Your task to perform on an android device: show emergency info Image 0: 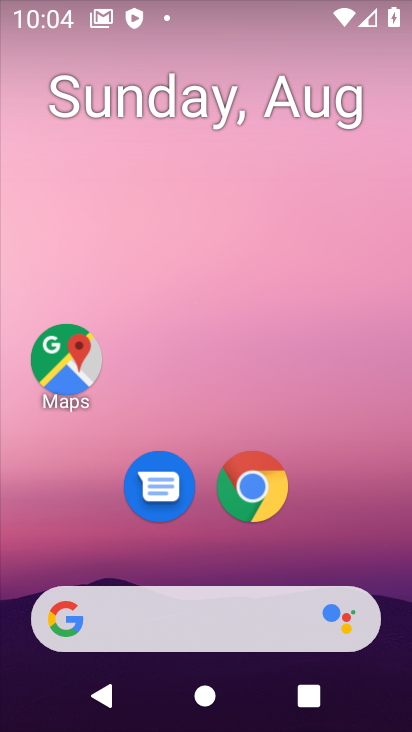
Step 0: drag from (263, 135) to (311, 11)
Your task to perform on an android device: show emergency info Image 1: 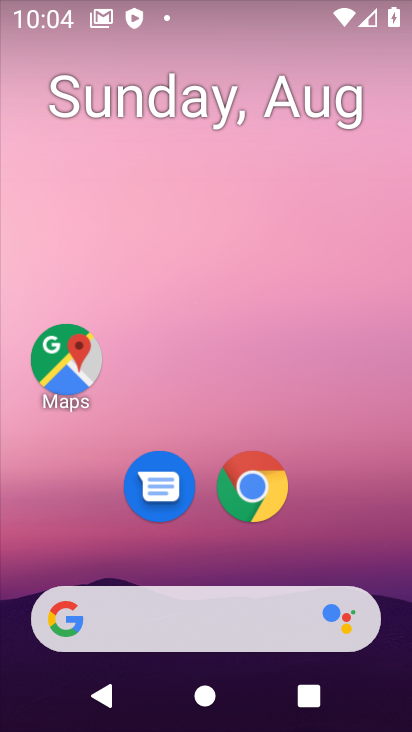
Step 1: drag from (236, 534) to (221, 184)
Your task to perform on an android device: show emergency info Image 2: 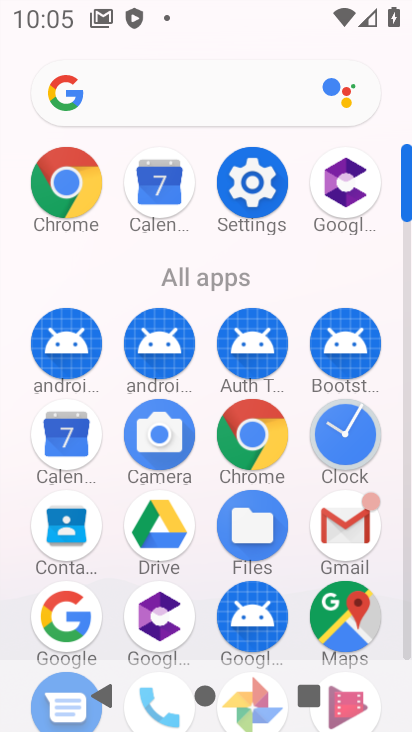
Step 2: click (270, 187)
Your task to perform on an android device: show emergency info Image 3: 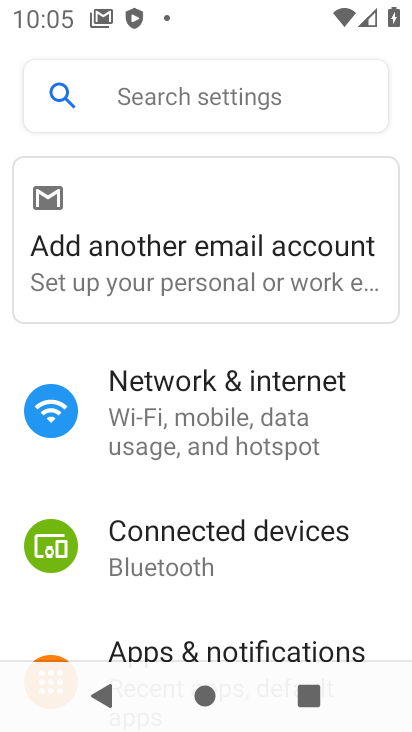
Step 3: drag from (255, 206) to (322, 12)
Your task to perform on an android device: show emergency info Image 4: 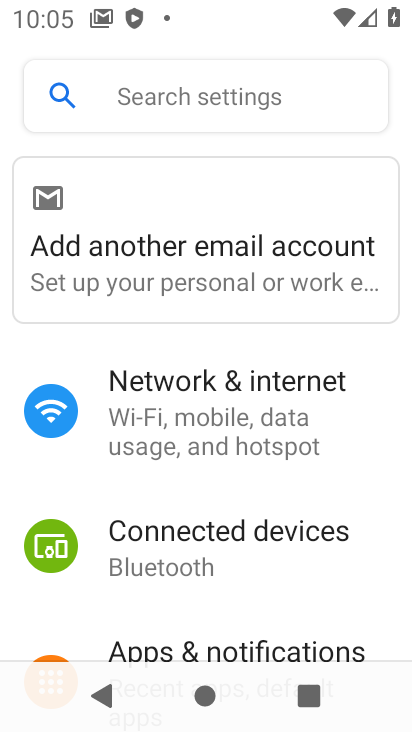
Step 4: drag from (274, 460) to (305, 92)
Your task to perform on an android device: show emergency info Image 5: 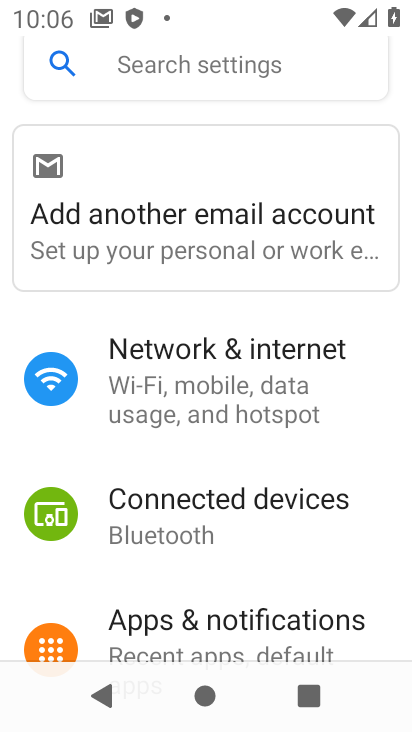
Step 5: drag from (298, 651) to (322, 146)
Your task to perform on an android device: show emergency info Image 6: 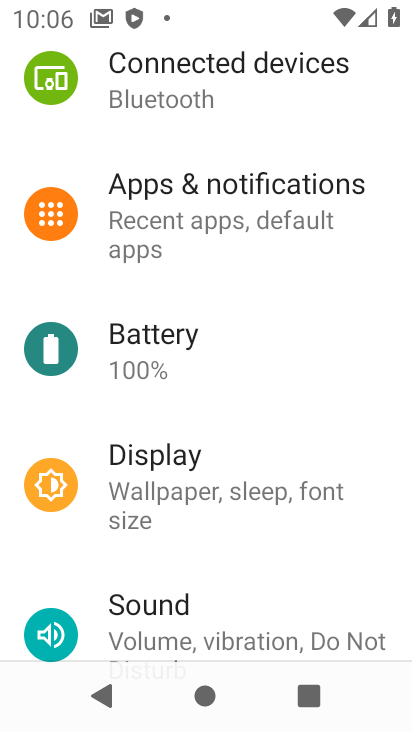
Step 6: drag from (258, 544) to (318, 15)
Your task to perform on an android device: show emergency info Image 7: 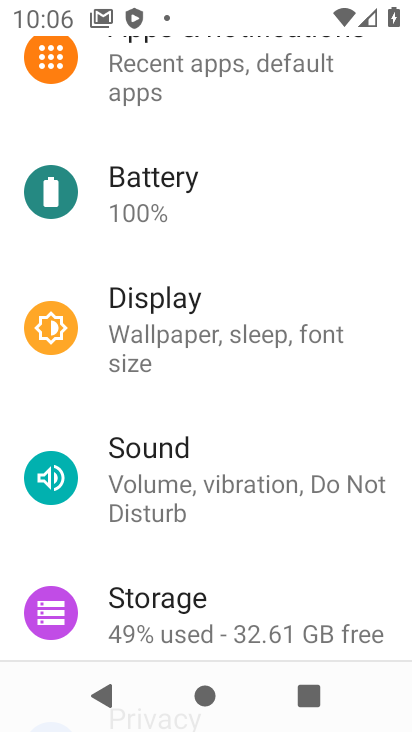
Step 7: drag from (234, 522) to (297, 49)
Your task to perform on an android device: show emergency info Image 8: 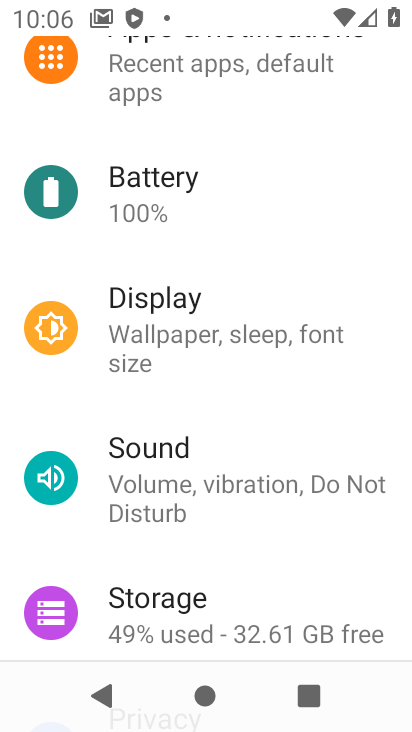
Step 8: drag from (229, 544) to (257, 87)
Your task to perform on an android device: show emergency info Image 9: 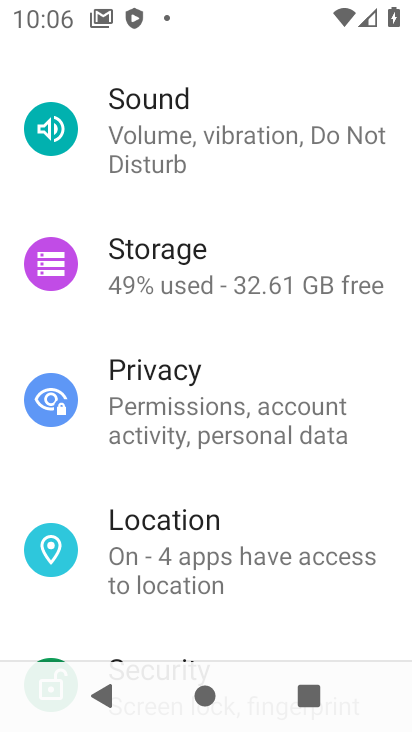
Step 9: drag from (172, 613) to (397, 12)
Your task to perform on an android device: show emergency info Image 10: 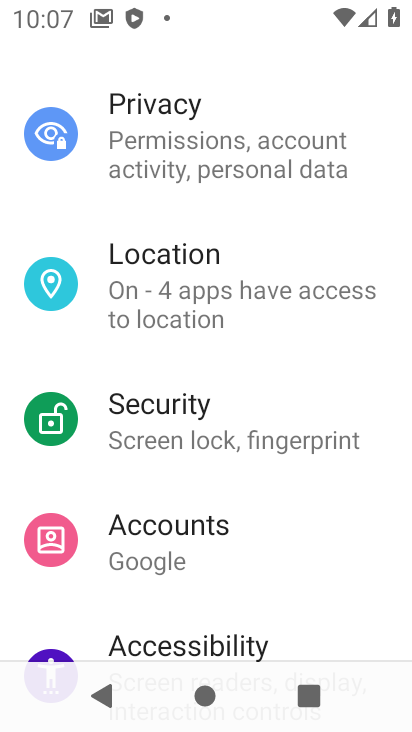
Step 10: drag from (338, 623) to (386, 107)
Your task to perform on an android device: show emergency info Image 11: 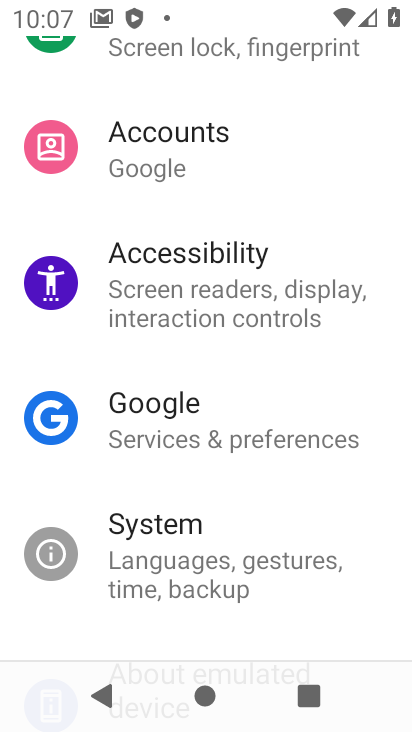
Step 11: drag from (324, 642) to (342, 29)
Your task to perform on an android device: show emergency info Image 12: 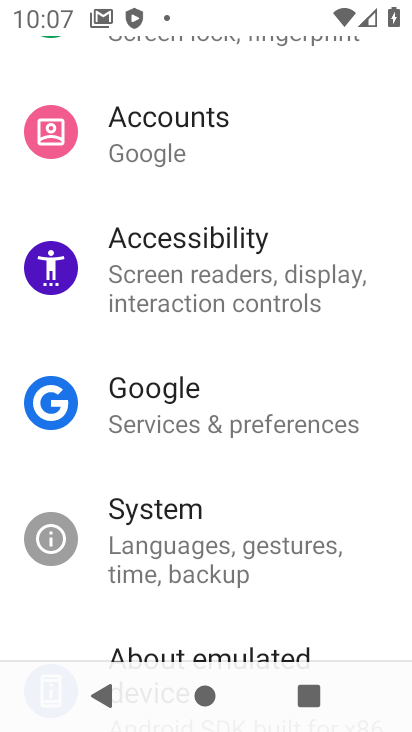
Step 12: drag from (278, 461) to (401, 12)
Your task to perform on an android device: show emergency info Image 13: 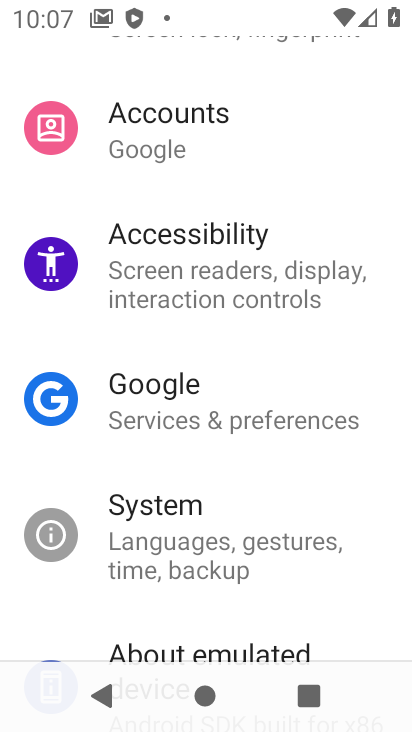
Step 13: click (281, 647)
Your task to perform on an android device: show emergency info Image 14: 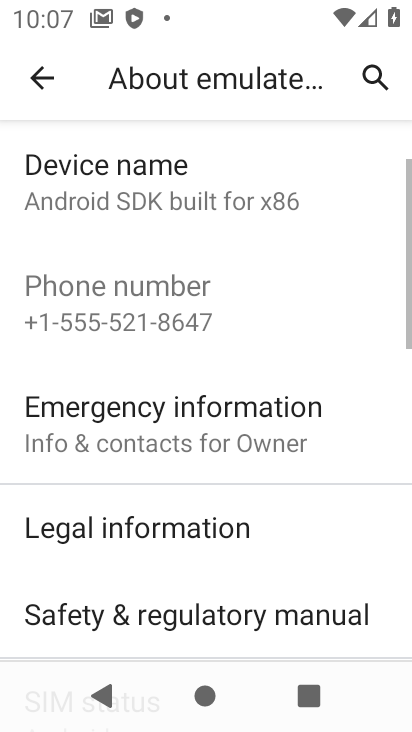
Step 14: click (192, 428)
Your task to perform on an android device: show emergency info Image 15: 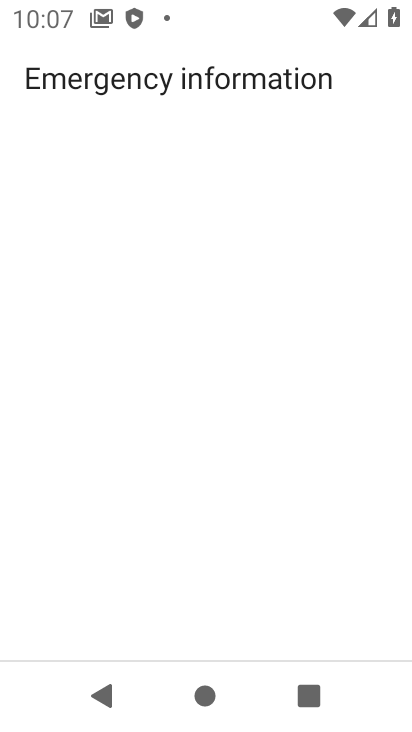
Step 15: task complete